Your task to perform on an android device: Open internet settings Image 0: 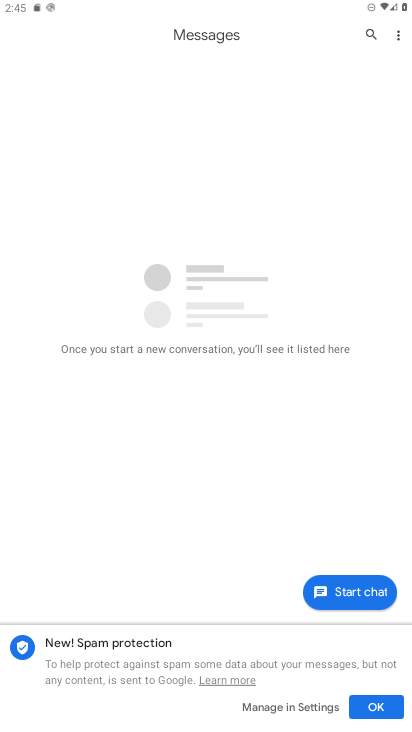
Step 0: press home button
Your task to perform on an android device: Open internet settings Image 1: 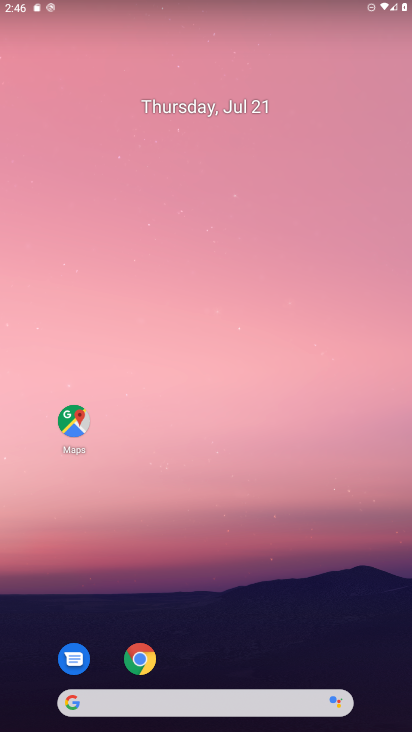
Step 1: drag from (63, 616) to (342, 224)
Your task to perform on an android device: Open internet settings Image 2: 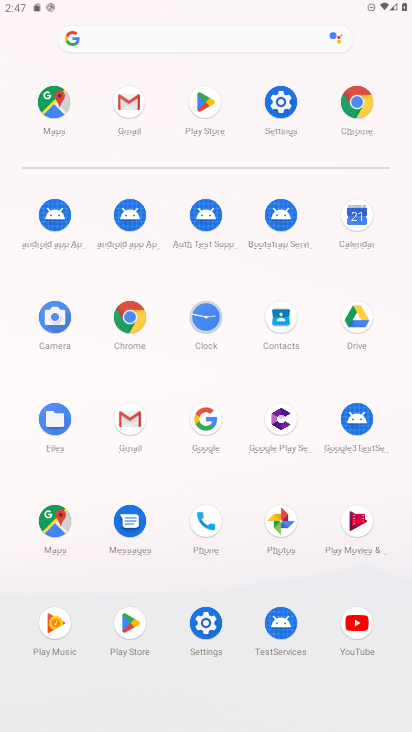
Step 2: click (195, 620)
Your task to perform on an android device: Open internet settings Image 3: 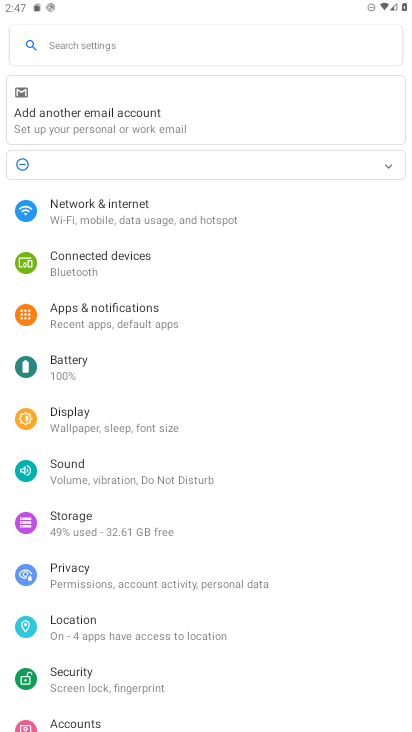
Step 3: click (125, 206)
Your task to perform on an android device: Open internet settings Image 4: 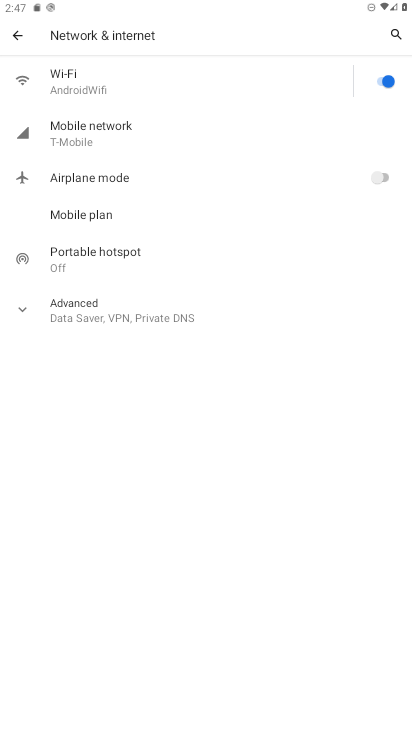
Step 4: click (110, 128)
Your task to perform on an android device: Open internet settings Image 5: 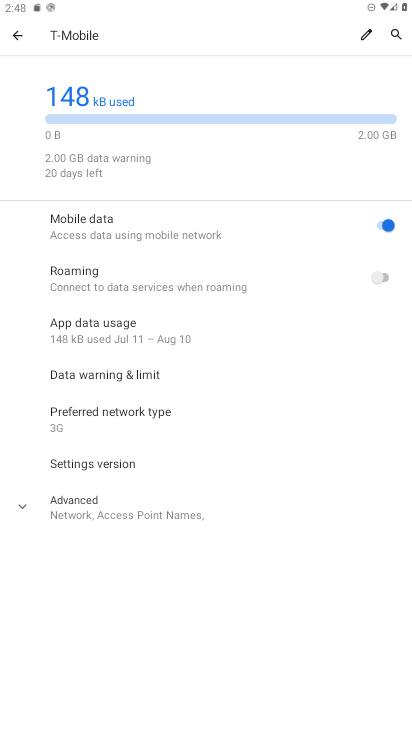
Step 5: task complete